Your task to perform on an android device: show emergency info Image 0: 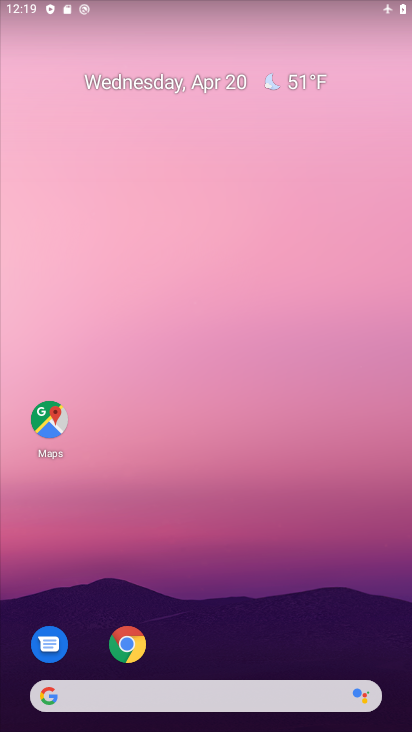
Step 0: drag from (222, 719) to (217, 69)
Your task to perform on an android device: show emergency info Image 1: 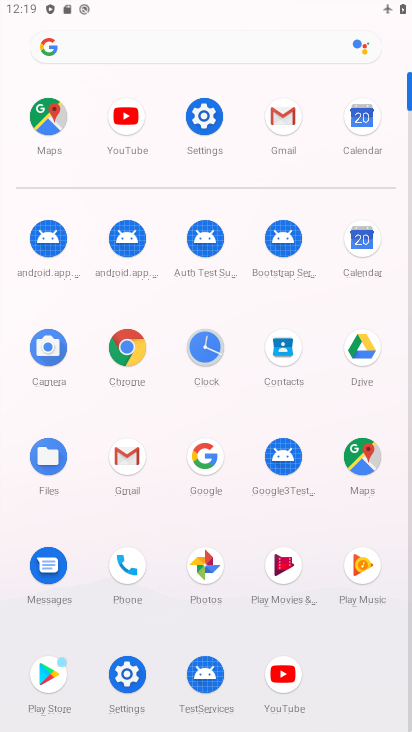
Step 1: click (135, 669)
Your task to perform on an android device: show emergency info Image 2: 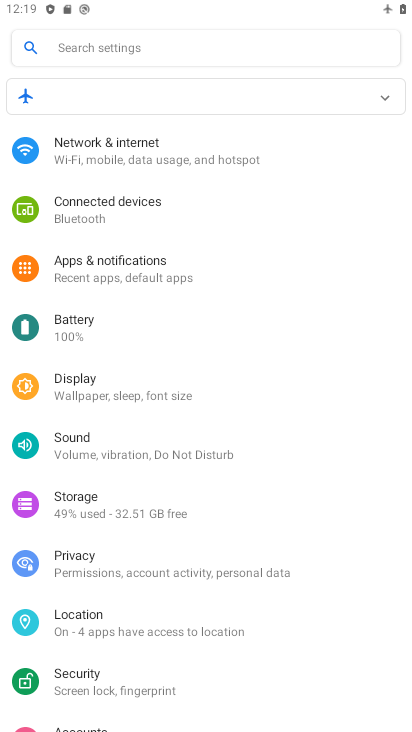
Step 2: drag from (160, 658) to (136, 279)
Your task to perform on an android device: show emergency info Image 3: 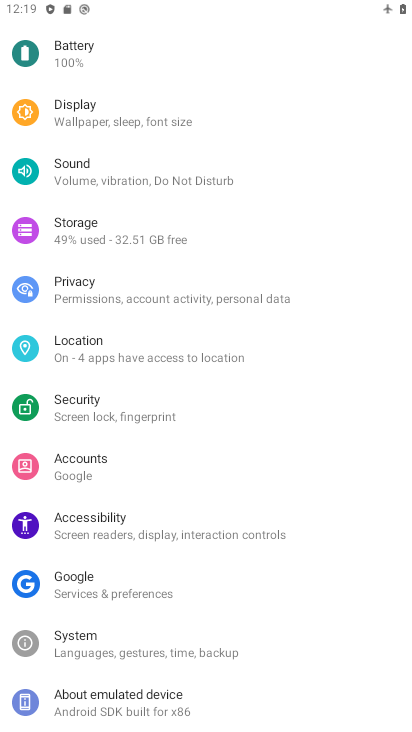
Step 3: click (114, 693)
Your task to perform on an android device: show emergency info Image 4: 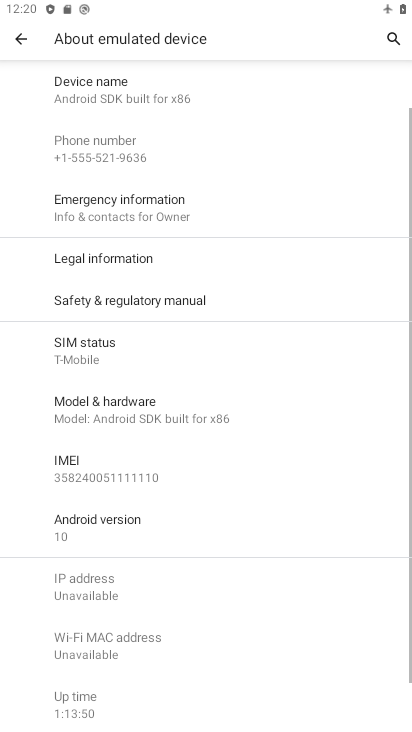
Step 4: click (122, 210)
Your task to perform on an android device: show emergency info Image 5: 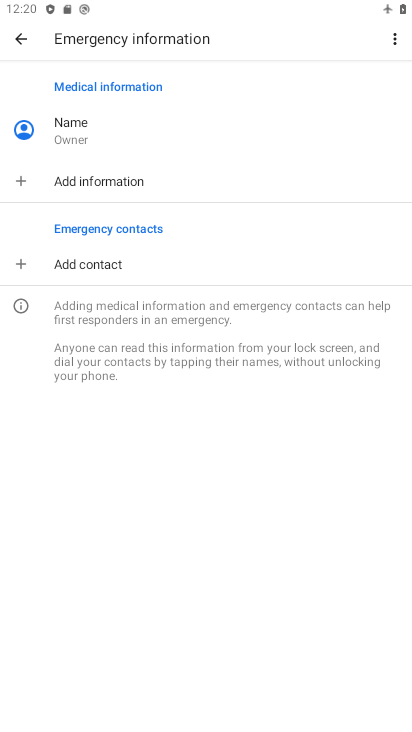
Step 5: task complete